Your task to perform on an android device: change text size in settings app Image 0: 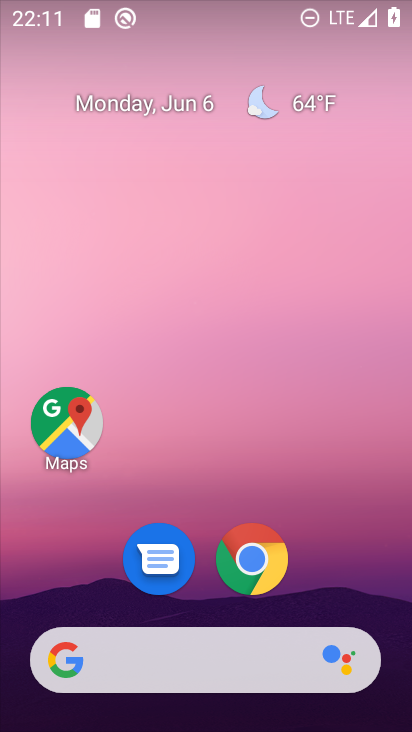
Step 0: drag from (244, 731) to (211, 81)
Your task to perform on an android device: change text size in settings app Image 1: 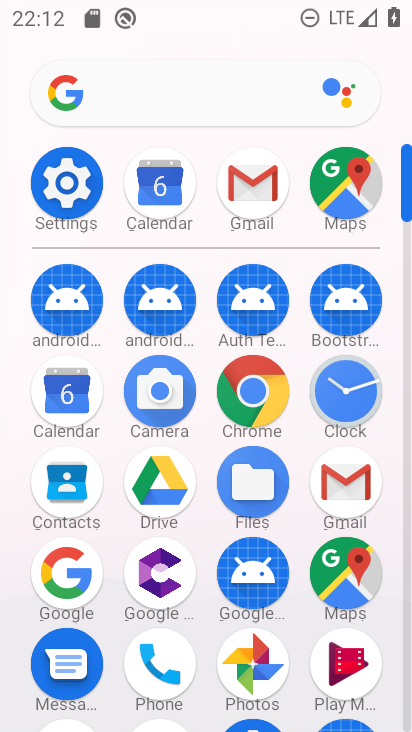
Step 1: click (66, 183)
Your task to perform on an android device: change text size in settings app Image 2: 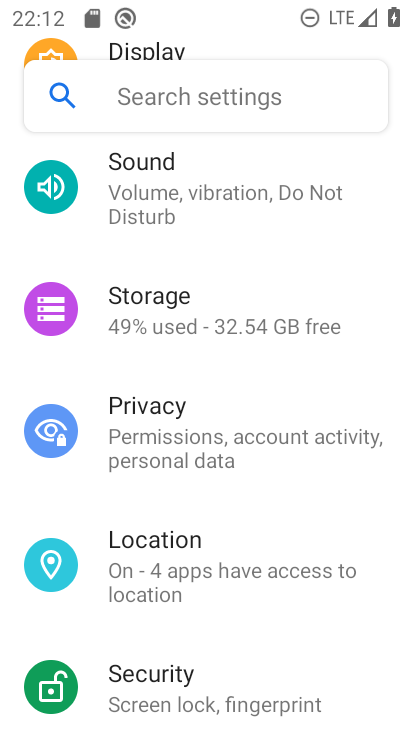
Step 2: drag from (203, 673) to (171, 306)
Your task to perform on an android device: change text size in settings app Image 3: 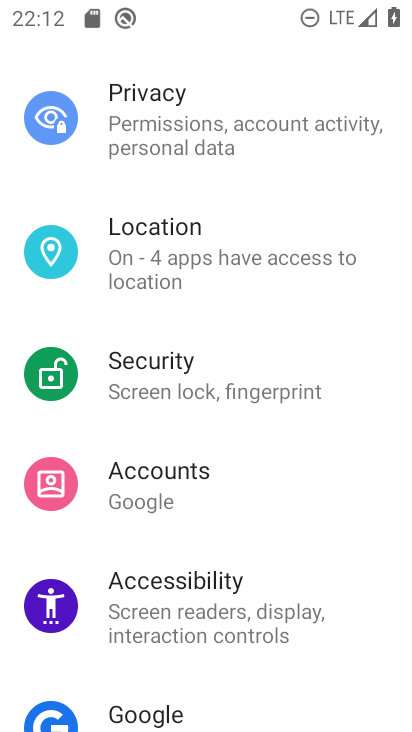
Step 3: drag from (229, 689) to (220, 379)
Your task to perform on an android device: change text size in settings app Image 4: 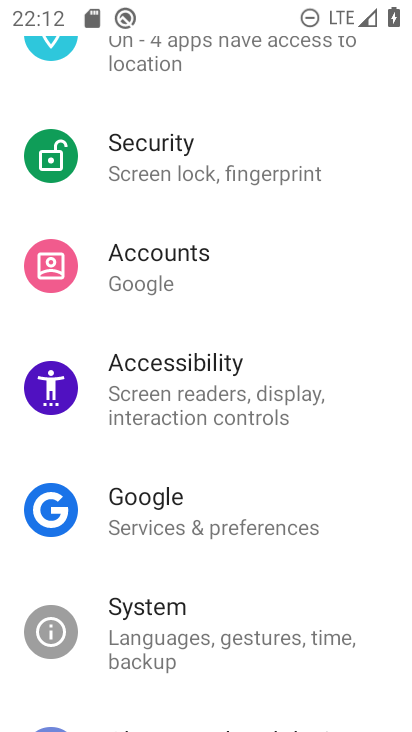
Step 4: drag from (230, 686) to (230, 338)
Your task to perform on an android device: change text size in settings app Image 5: 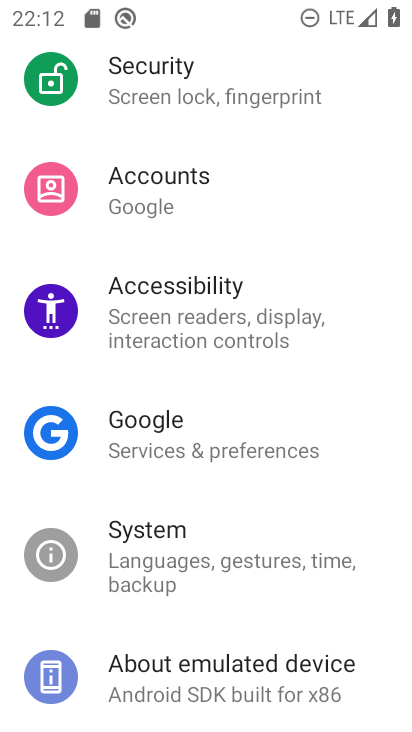
Step 5: drag from (231, 125) to (263, 522)
Your task to perform on an android device: change text size in settings app Image 6: 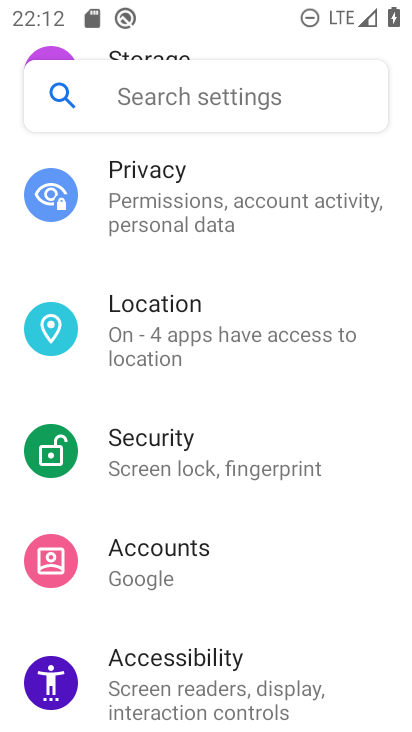
Step 6: drag from (246, 174) to (249, 516)
Your task to perform on an android device: change text size in settings app Image 7: 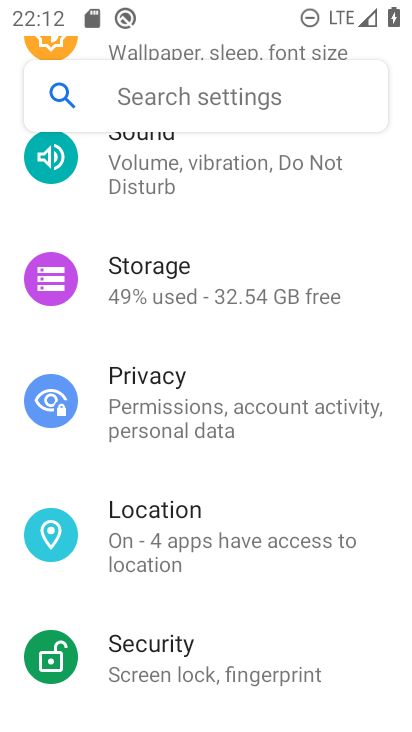
Step 7: drag from (233, 204) to (269, 562)
Your task to perform on an android device: change text size in settings app Image 8: 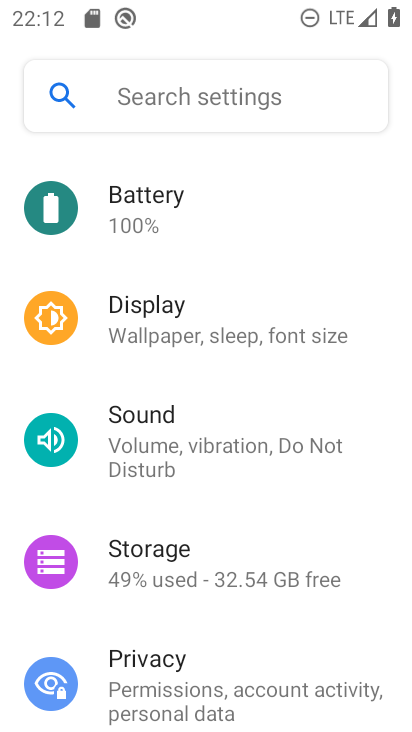
Step 8: drag from (220, 163) to (277, 582)
Your task to perform on an android device: change text size in settings app Image 9: 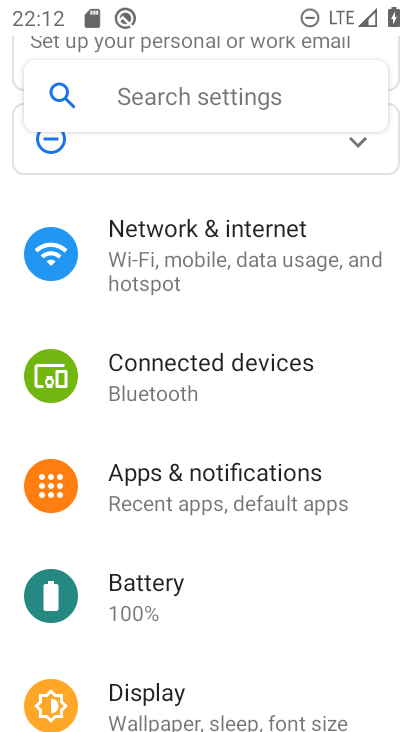
Step 9: drag from (251, 632) to (251, 322)
Your task to perform on an android device: change text size in settings app Image 10: 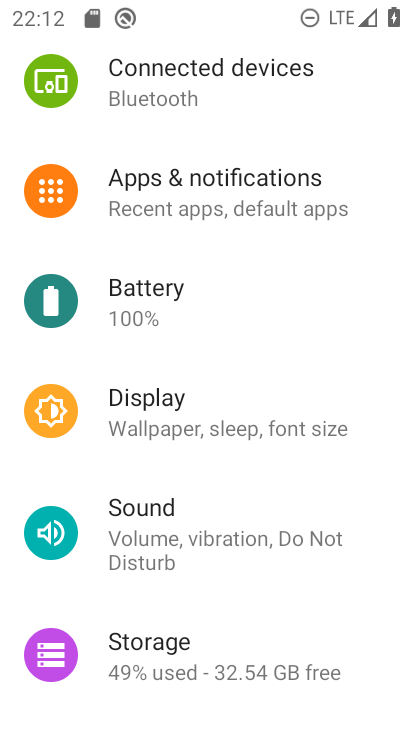
Step 10: click (254, 425)
Your task to perform on an android device: change text size in settings app Image 11: 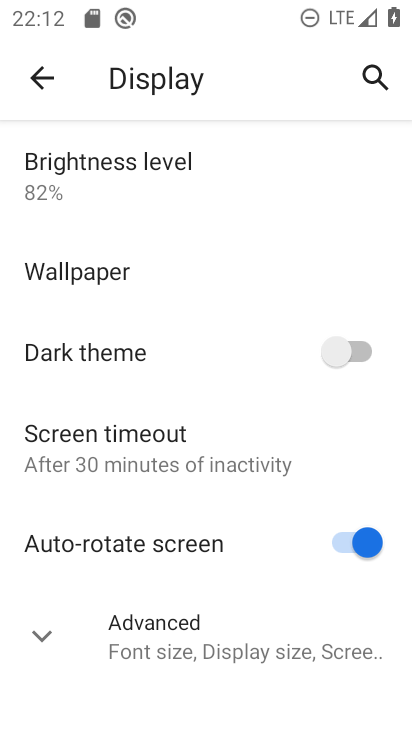
Step 11: click (239, 657)
Your task to perform on an android device: change text size in settings app Image 12: 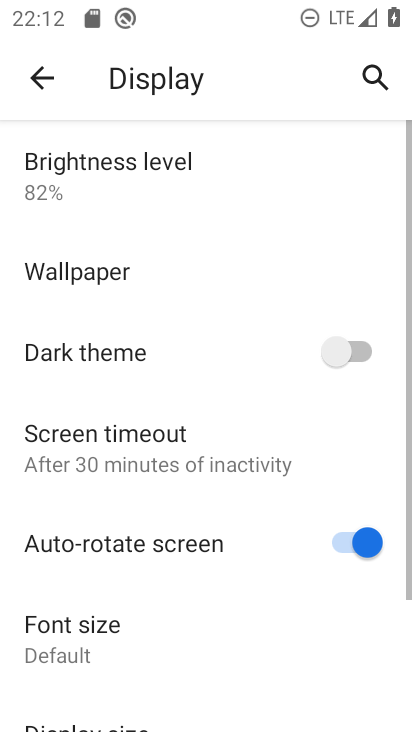
Step 12: drag from (220, 660) to (216, 337)
Your task to perform on an android device: change text size in settings app Image 13: 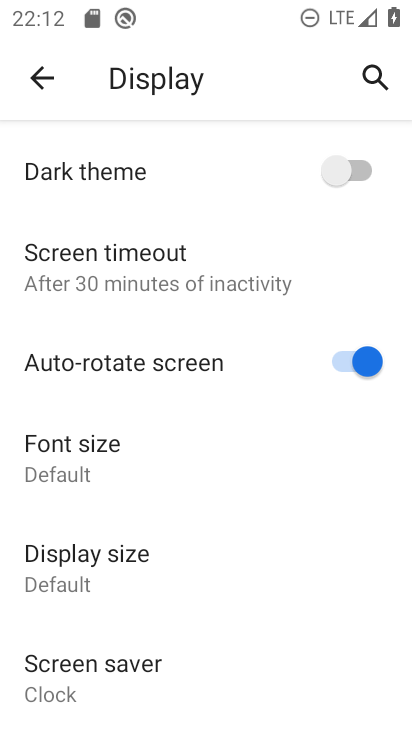
Step 13: click (79, 454)
Your task to perform on an android device: change text size in settings app Image 14: 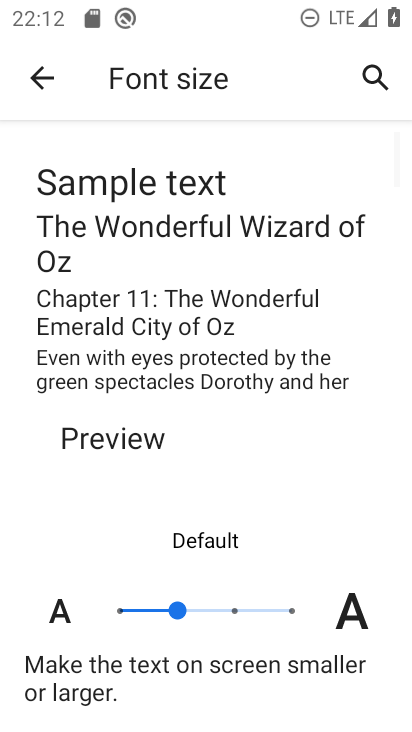
Step 14: click (236, 610)
Your task to perform on an android device: change text size in settings app Image 15: 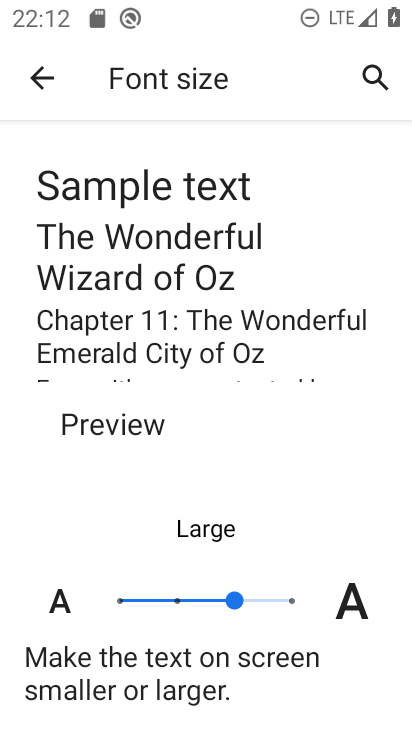
Step 15: task complete